Your task to perform on an android device: add a contact in the contacts app Image 0: 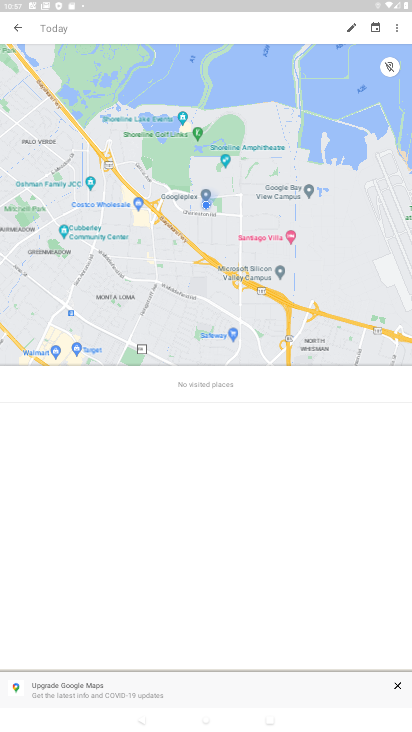
Step 0: press home button
Your task to perform on an android device: add a contact in the contacts app Image 1: 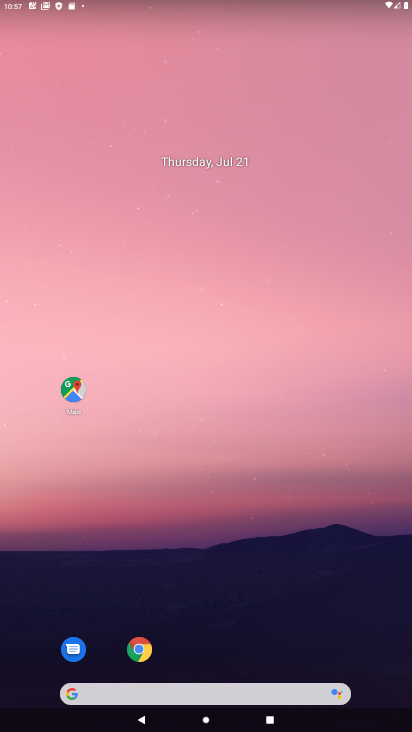
Step 1: drag from (288, 623) to (279, 330)
Your task to perform on an android device: add a contact in the contacts app Image 2: 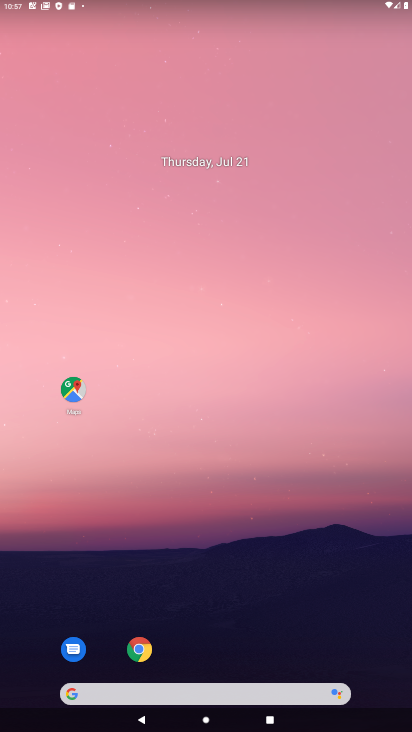
Step 2: drag from (314, 604) to (296, 1)
Your task to perform on an android device: add a contact in the contacts app Image 3: 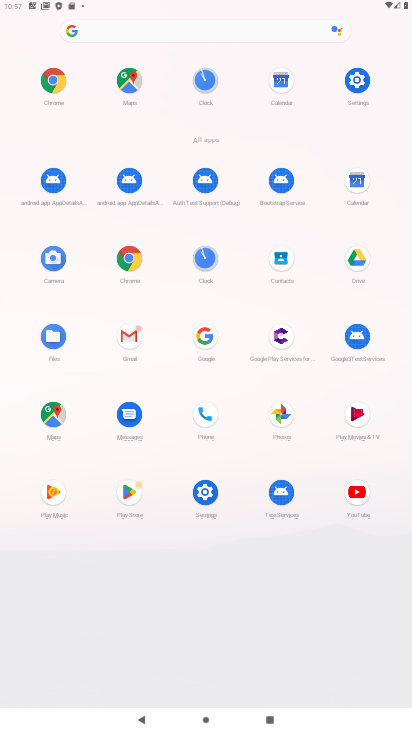
Step 3: click (281, 261)
Your task to perform on an android device: add a contact in the contacts app Image 4: 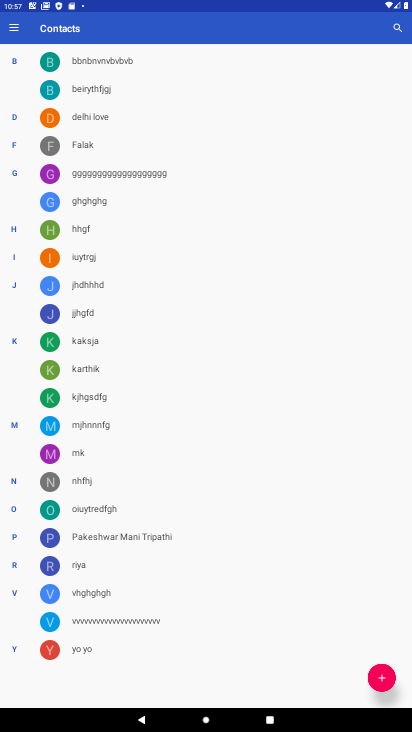
Step 4: click (378, 681)
Your task to perform on an android device: add a contact in the contacts app Image 5: 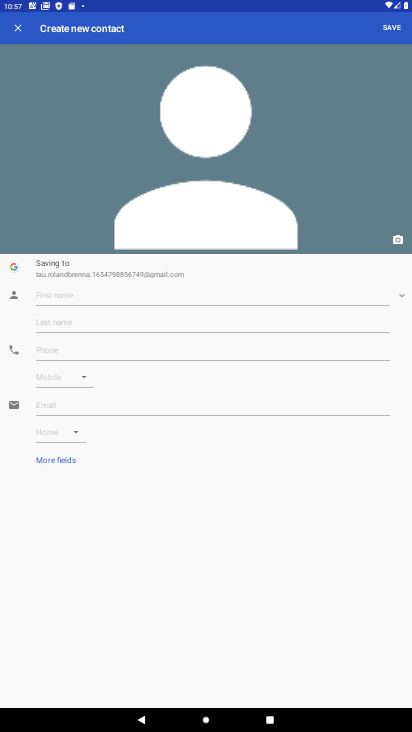
Step 5: click (39, 297)
Your task to perform on an android device: add a contact in the contacts app Image 6: 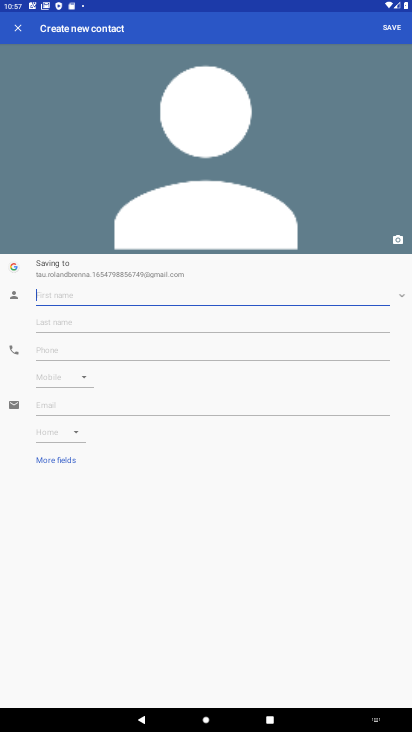
Step 6: type "bgh"
Your task to perform on an android device: add a contact in the contacts app Image 7: 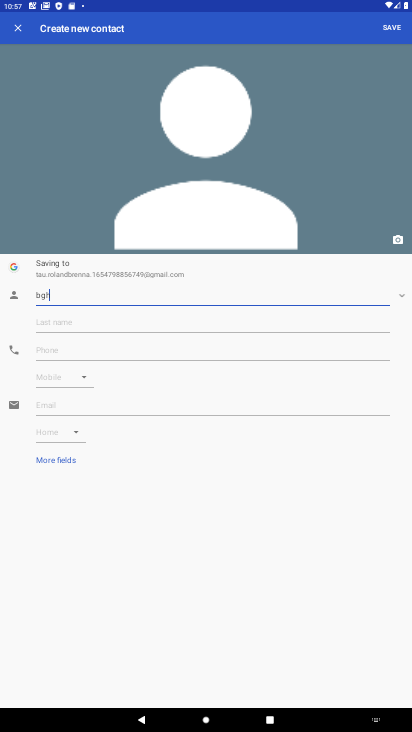
Step 7: click (95, 346)
Your task to perform on an android device: add a contact in the contacts app Image 8: 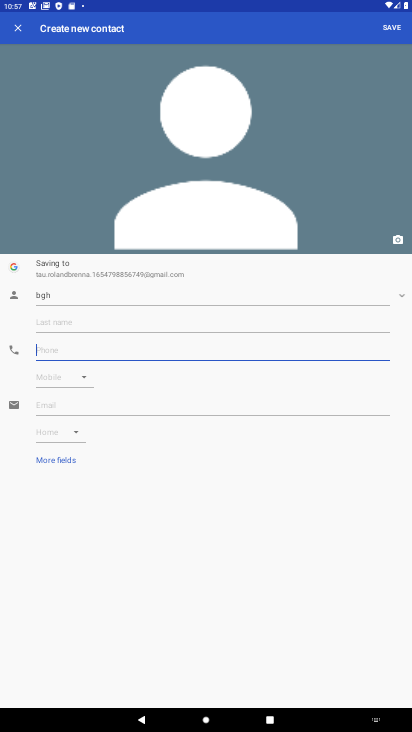
Step 8: type "7890654321"
Your task to perform on an android device: add a contact in the contacts app Image 9: 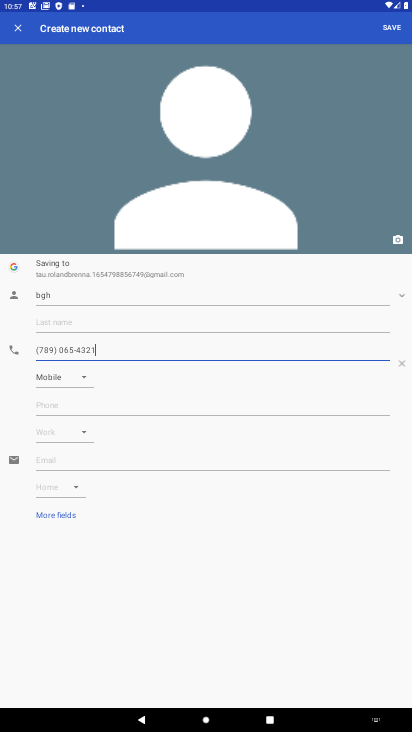
Step 9: click (397, 33)
Your task to perform on an android device: add a contact in the contacts app Image 10: 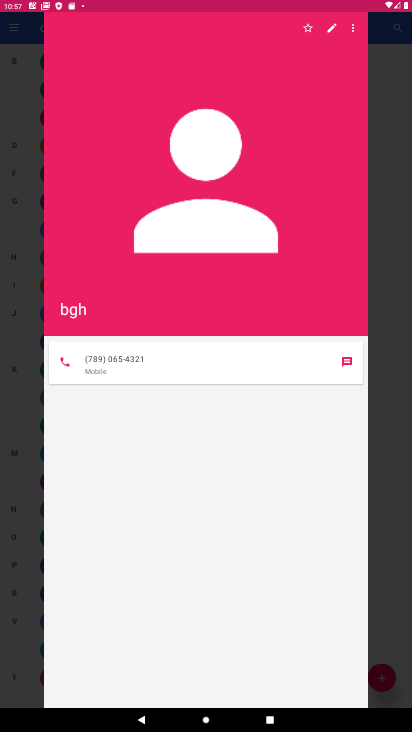
Step 10: task complete